Your task to perform on an android device: turn on translation in the chrome app Image 0: 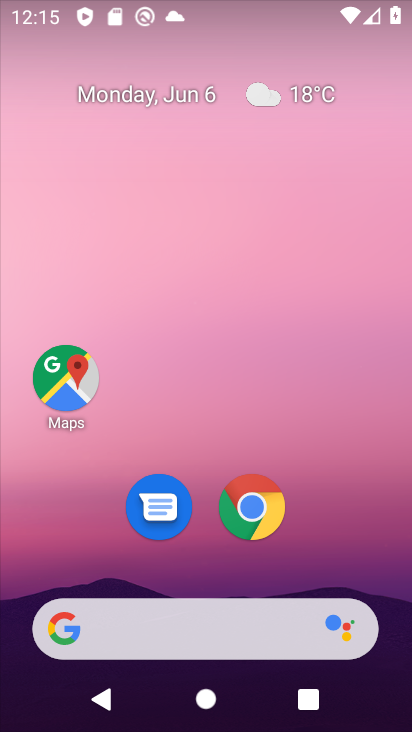
Step 0: click (246, 517)
Your task to perform on an android device: turn on translation in the chrome app Image 1: 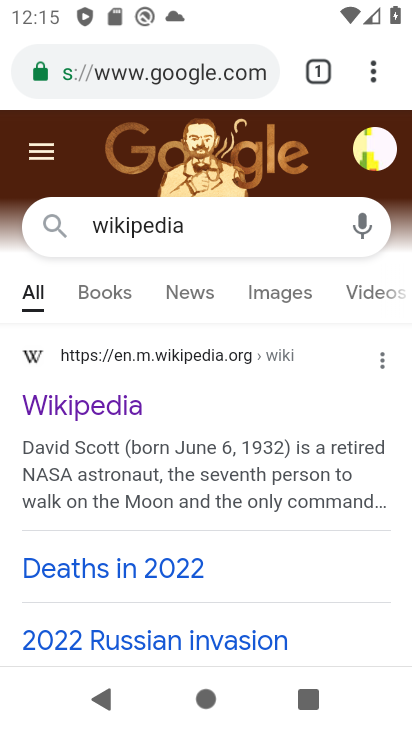
Step 1: click (370, 69)
Your task to perform on an android device: turn on translation in the chrome app Image 2: 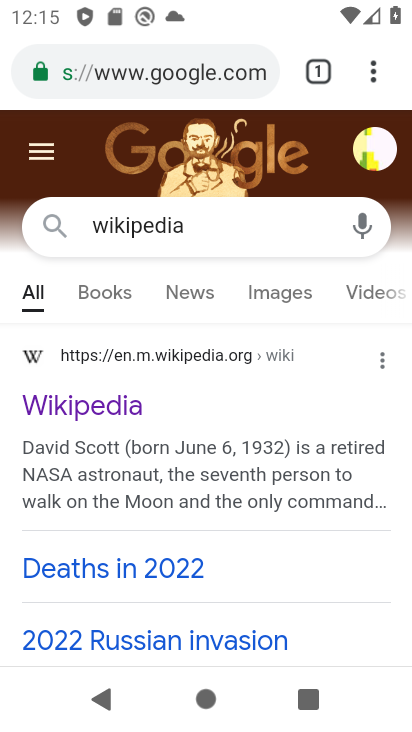
Step 2: click (379, 75)
Your task to perform on an android device: turn on translation in the chrome app Image 3: 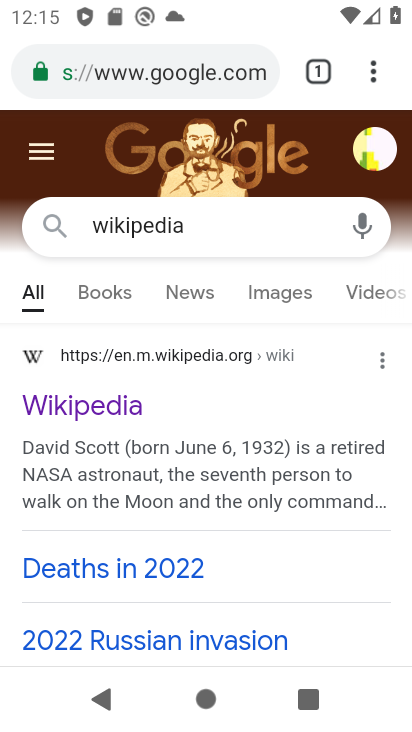
Step 3: click (380, 63)
Your task to perform on an android device: turn on translation in the chrome app Image 4: 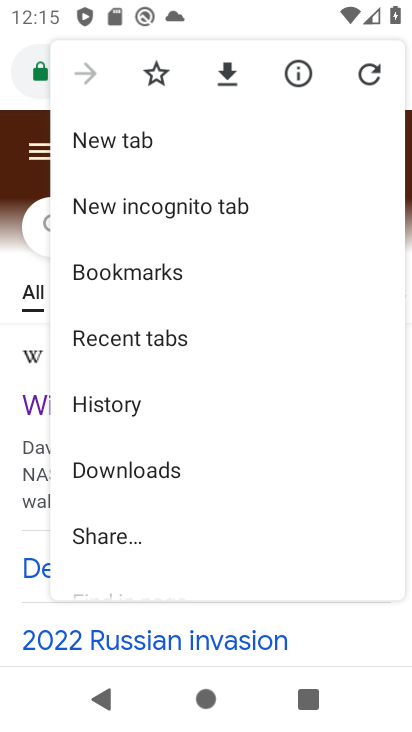
Step 4: drag from (154, 512) to (210, 198)
Your task to perform on an android device: turn on translation in the chrome app Image 5: 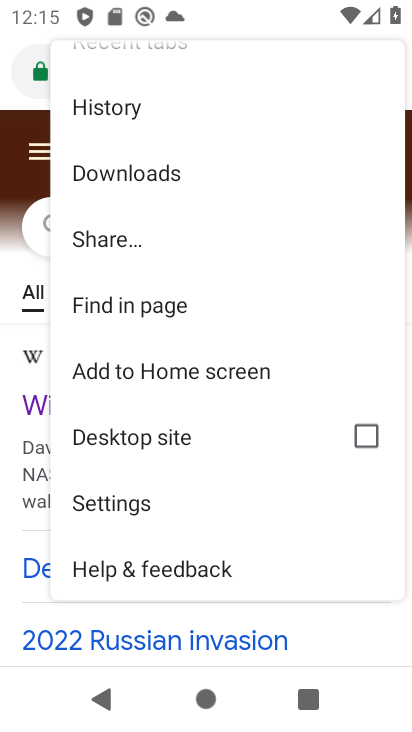
Step 5: click (146, 509)
Your task to perform on an android device: turn on translation in the chrome app Image 6: 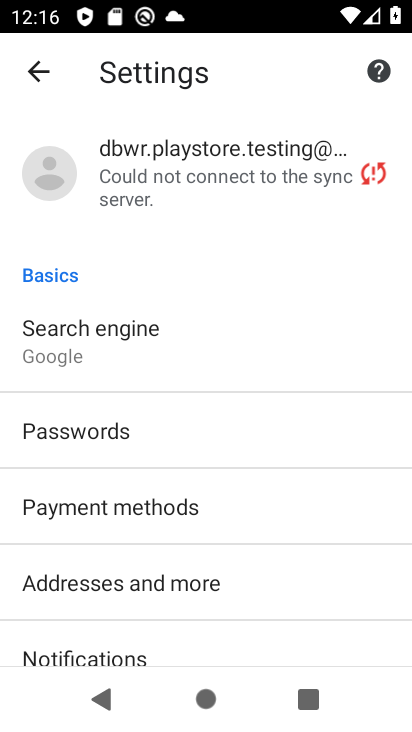
Step 6: drag from (175, 642) to (275, 188)
Your task to perform on an android device: turn on translation in the chrome app Image 7: 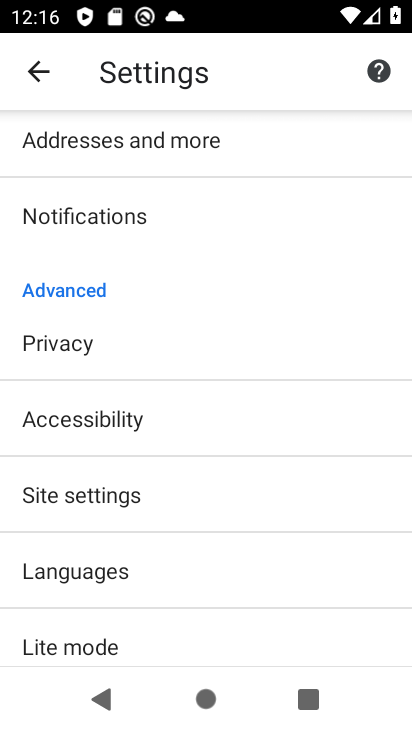
Step 7: click (120, 574)
Your task to perform on an android device: turn on translation in the chrome app Image 8: 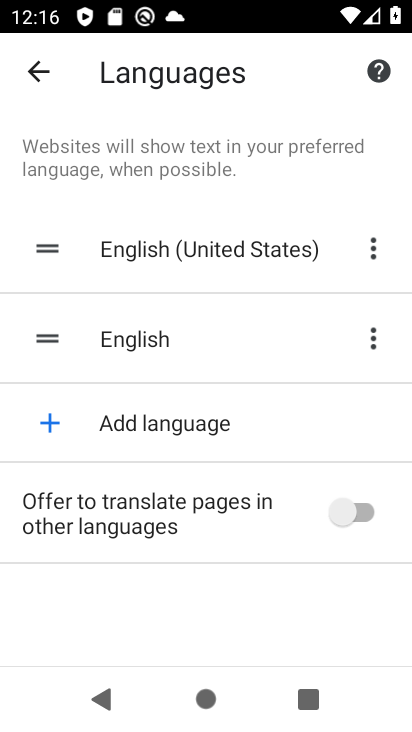
Step 8: click (346, 524)
Your task to perform on an android device: turn on translation in the chrome app Image 9: 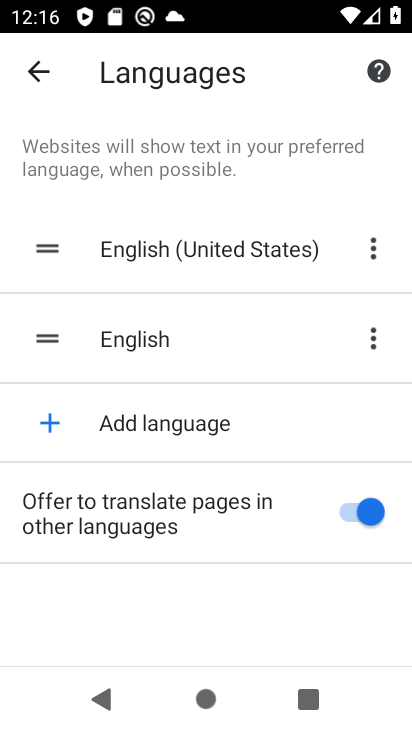
Step 9: task complete